Your task to perform on an android device: Open network settings Image 0: 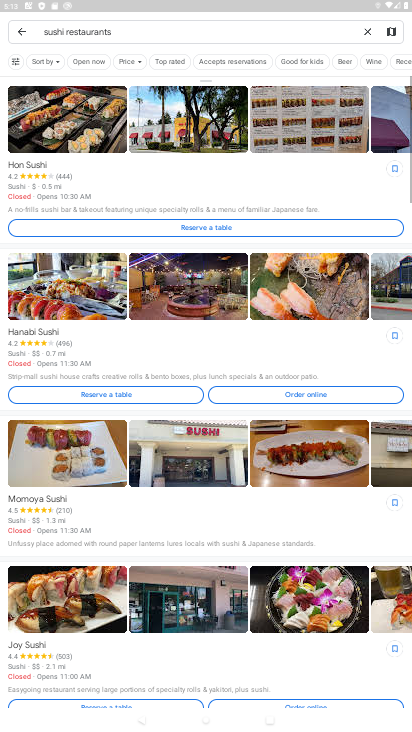
Step 0: press home button
Your task to perform on an android device: Open network settings Image 1: 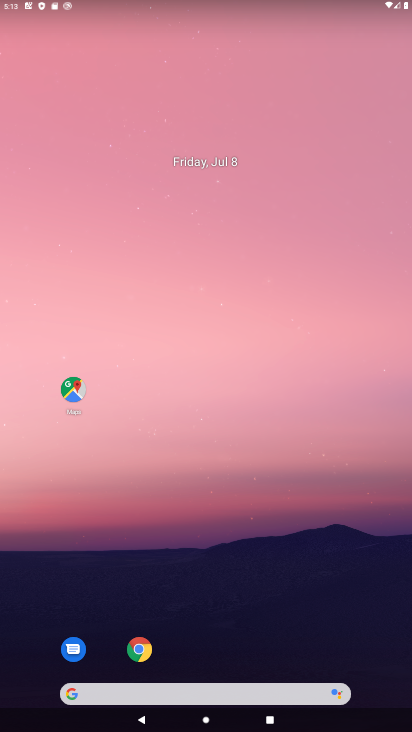
Step 1: drag from (245, 568) to (273, 26)
Your task to perform on an android device: Open network settings Image 2: 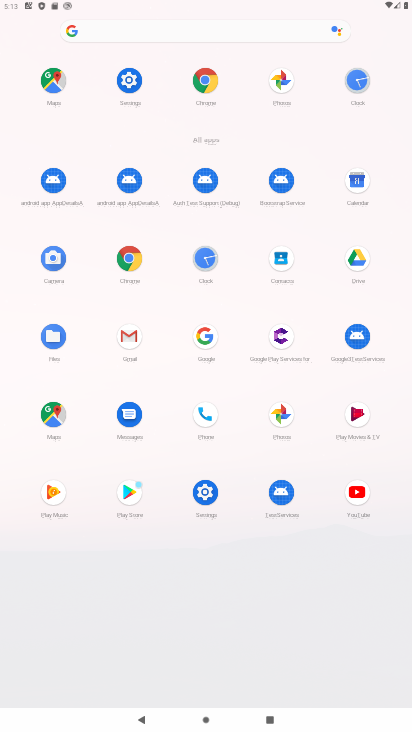
Step 2: click (126, 70)
Your task to perform on an android device: Open network settings Image 3: 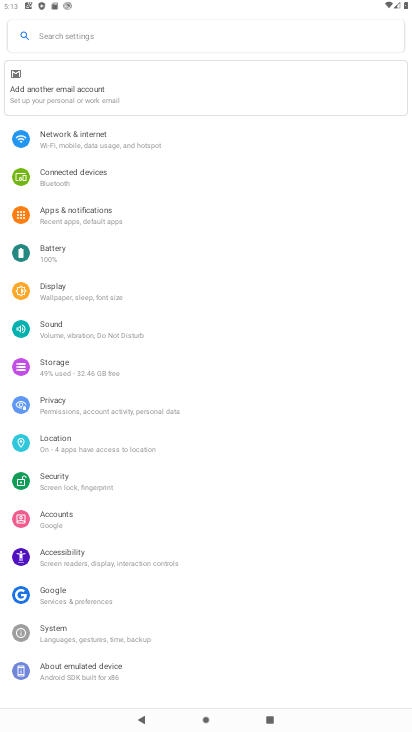
Step 3: click (56, 142)
Your task to perform on an android device: Open network settings Image 4: 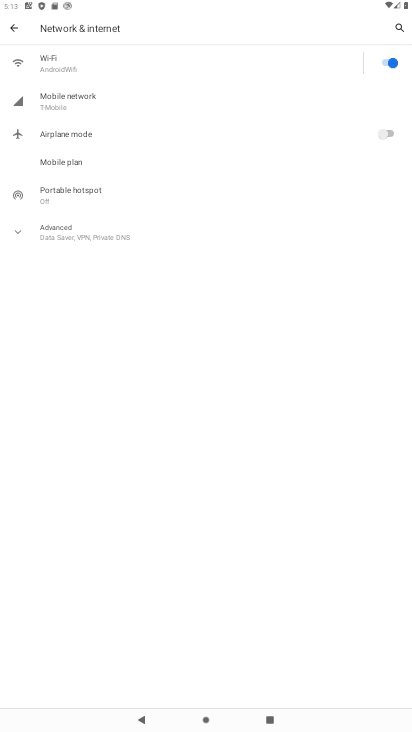
Step 4: task complete